Your task to perform on an android device: check data usage Image 0: 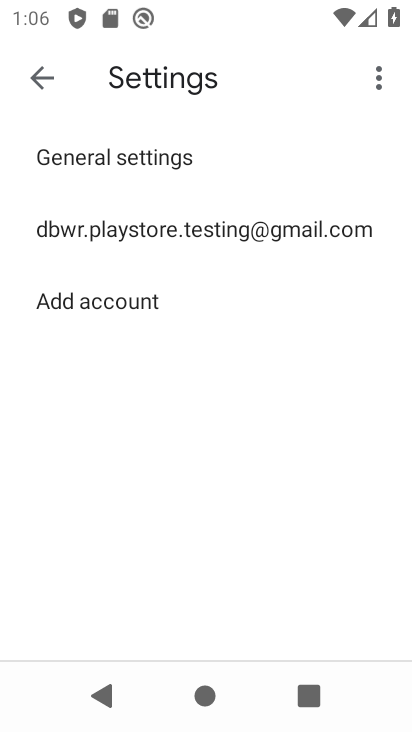
Step 0: press home button
Your task to perform on an android device: check data usage Image 1: 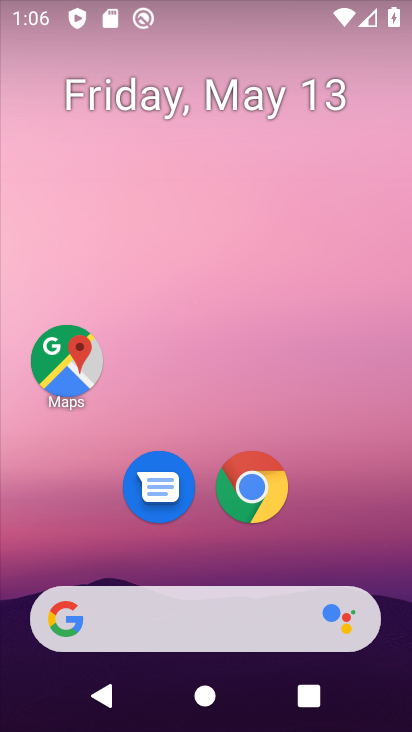
Step 1: drag from (369, 531) to (346, 74)
Your task to perform on an android device: check data usage Image 2: 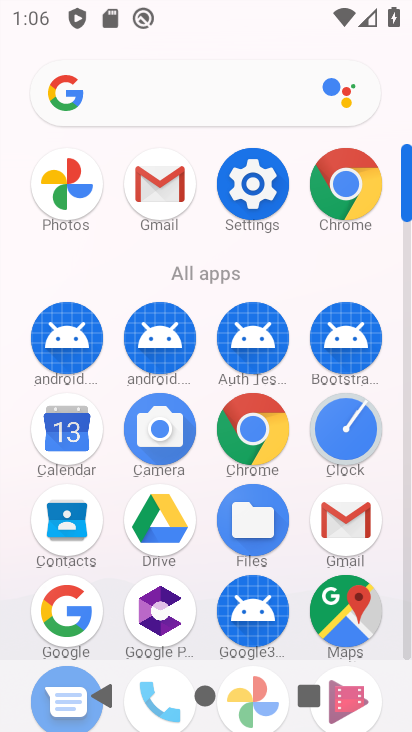
Step 2: click (236, 205)
Your task to perform on an android device: check data usage Image 3: 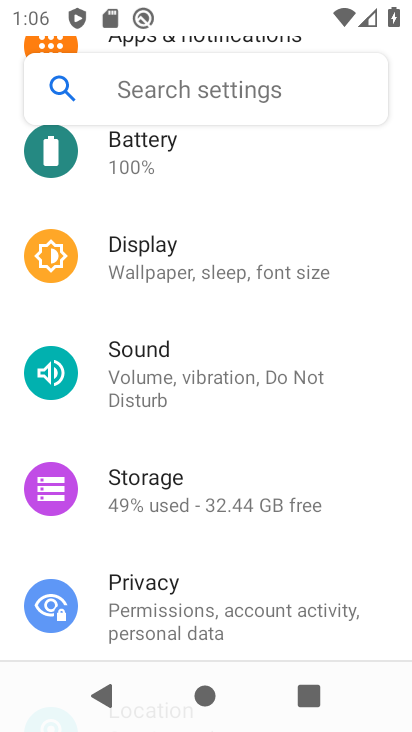
Step 3: drag from (238, 207) to (298, 581)
Your task to perform on an android device: check data usage Image 4: 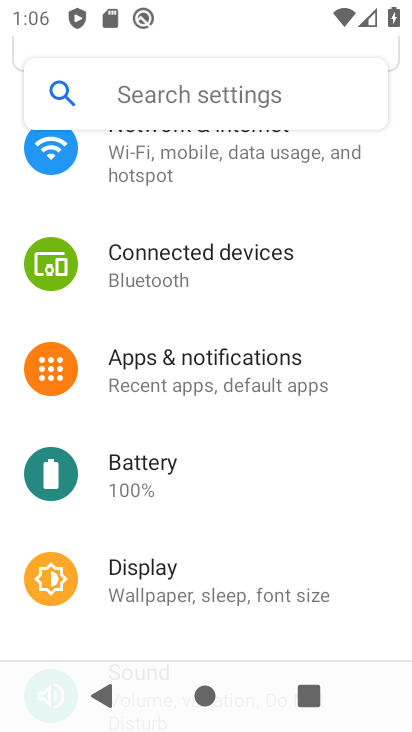
Step 4: drag from (276, 396) to (276, 708)
Your task to perform on an android device: check data usage Image 5: 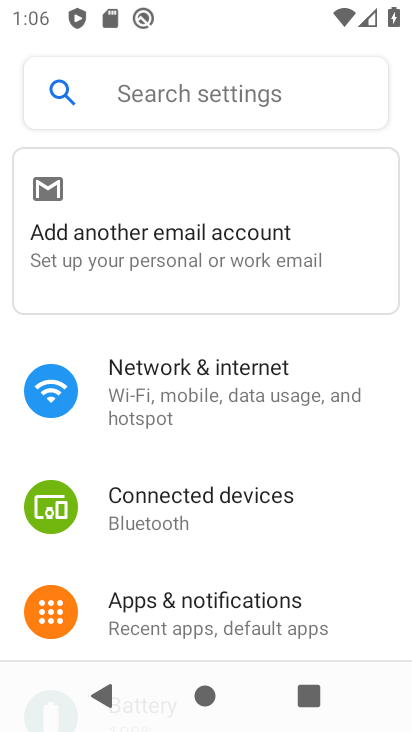
Step 5: click (277, 403)
Your task to perform on an android device: check data usage Image 6: 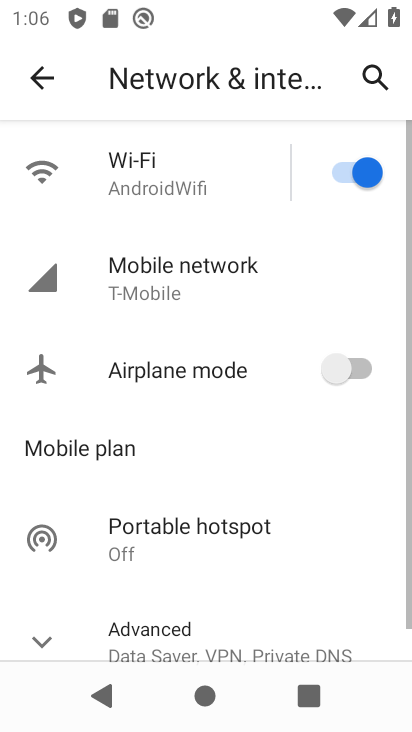
Step 6: click (211, 288)
Your task to perform on an android device: check data usage Image 7: 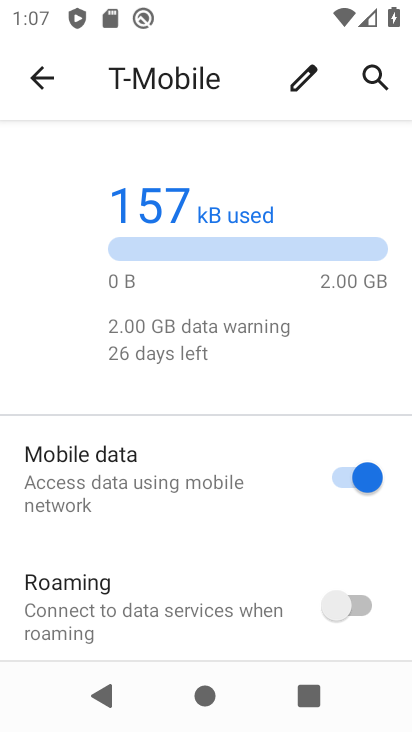
Step 7: task complete